Your task to perform on an android device: Search for sushi restaurants on Maps Image 0: 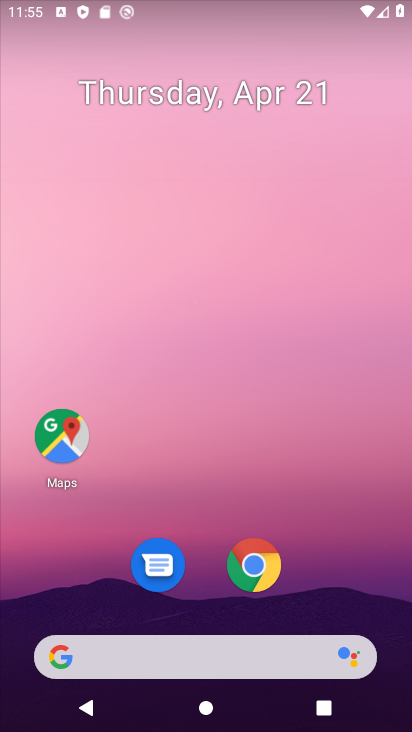
Step 0: click (57, 441)
Your task to perform on an android device: Search for sushi restaurants on Maps Image 1: 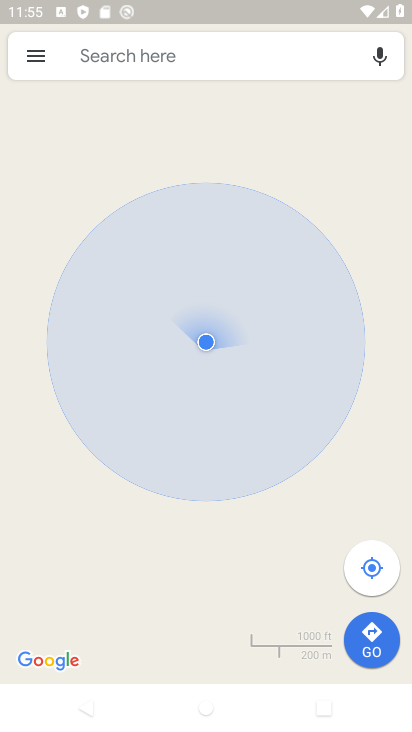
Step 1: press back button
Your task to perform on an android device: Search for sushi restaurants on Maps Image 2: 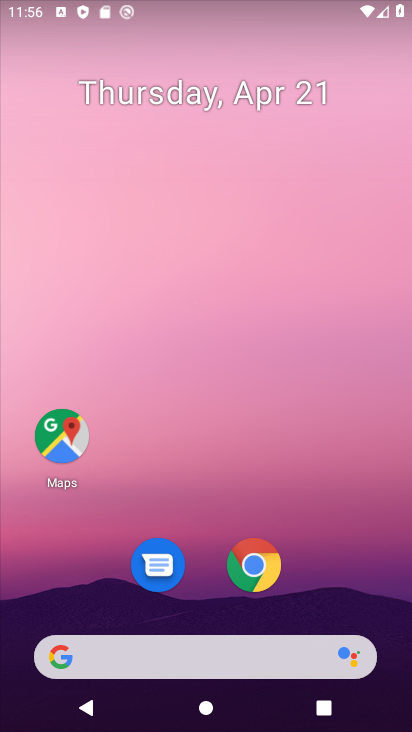
Step 2: click (45, 428)
Your task to perform on an android device: Search for sushi restaurants on Maps Image 3: 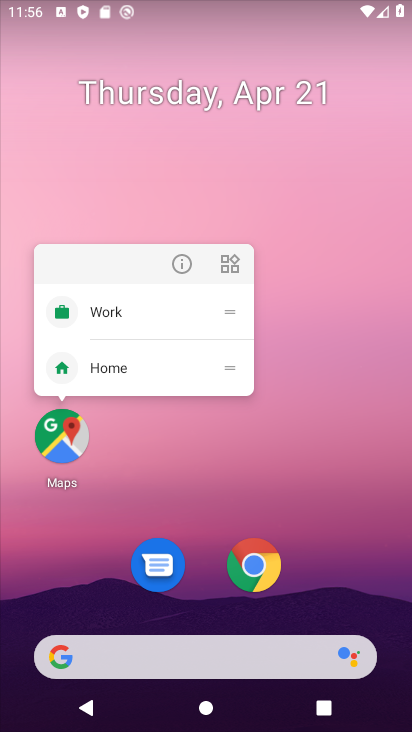
Step 3: click (179, 260)
Your task to perform on an android device: Search for sushi restaurants on Maps Image 4: 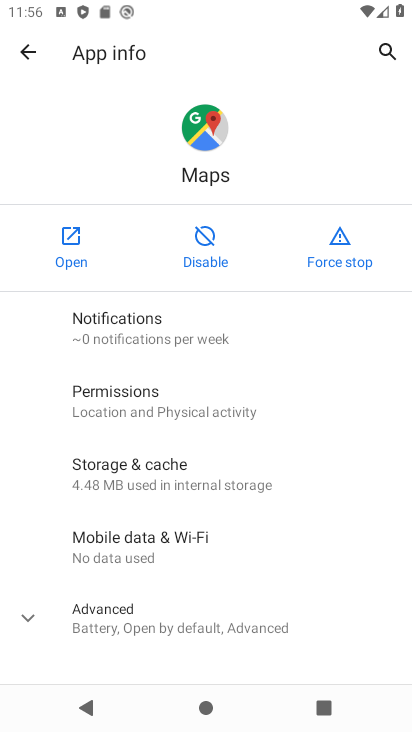
Step 4: click (64, 259)
Your task to perform on an android device: Search for sushi restaurants on Maps Image 5: 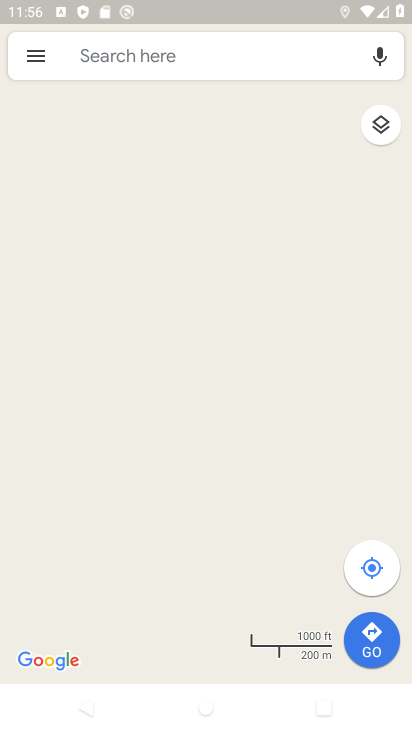
Step 5: click (163, 66)
Your task to perform on an android device: Search for sushi restaurants on Maps Image 6: 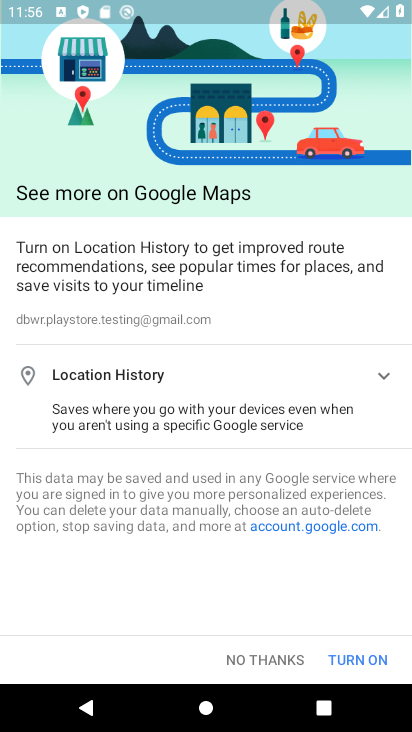
Step 6: click (356, 654)
Your task to perform on an android device: Search for sushi restaurants on Maps Image 7: 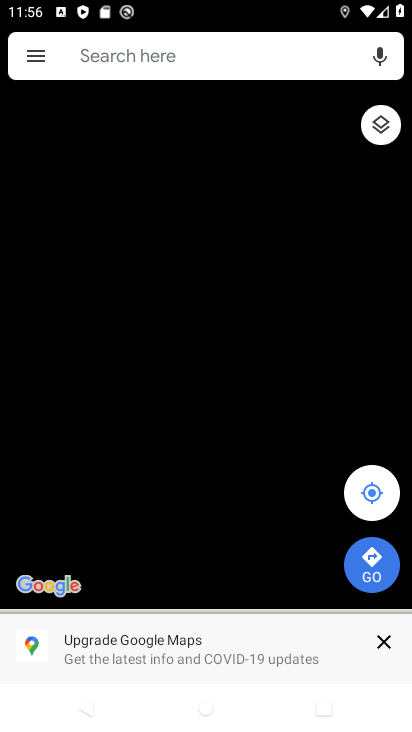
Step 7: click (150, 62)
Your task to perform on an android device: Search for sushi restaurants on Maps Image 8: 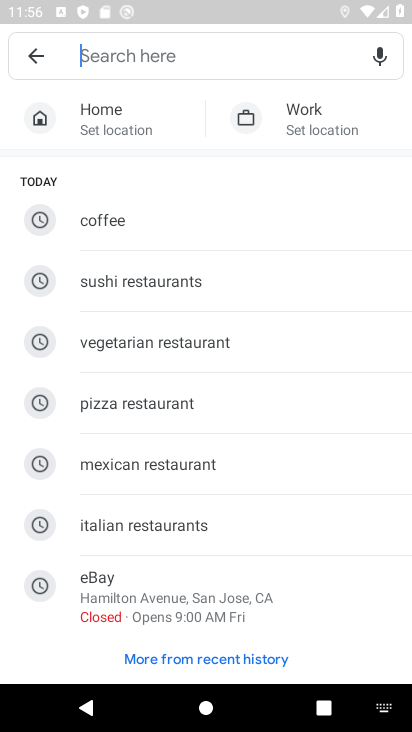
Step 8: type "sushi restaurants"
Your task to perform on an android device: Search for sushi restaurants on Maps Image 9: 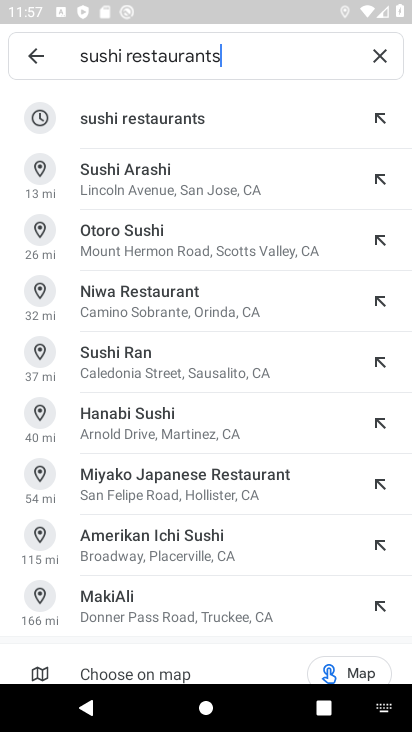
Step 9: click (215, 124)
Your task to perform on an android device: Search for sushi restaurants on Maps Image 10: 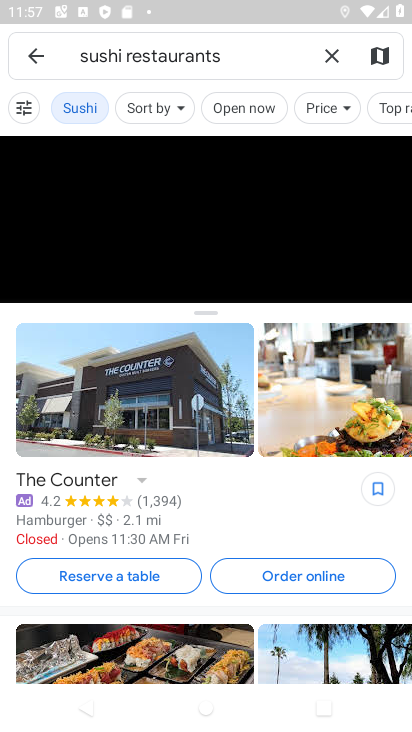
Step 10: task complete